Your task to perform on an android device: Go to battery settings Image 0: 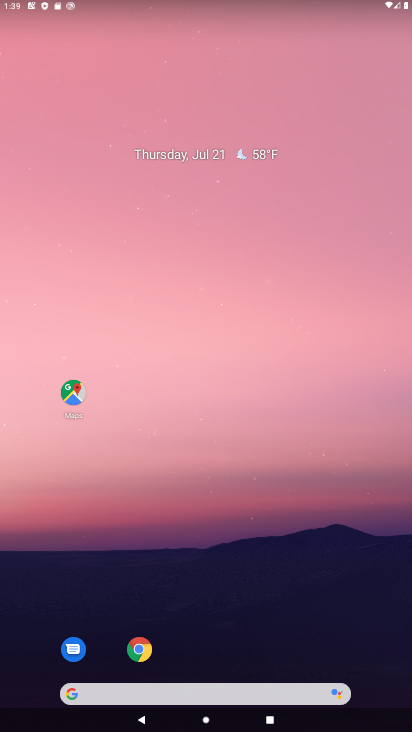
Step 0: drag from (257, 681) to (247, 146)
Your task to perform on an android device: Go to battery settings Image 1: 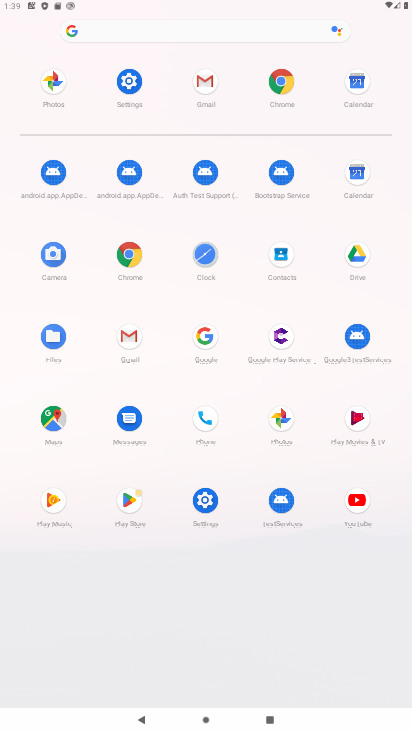
Step 1: click (149, 80)
Your task to perform on an android device: Go to battery settings Image 2: 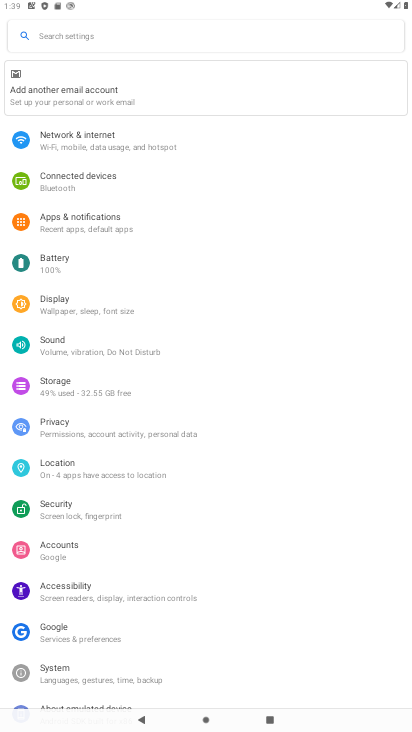
Step 2: click (117, 265)
Your task to perform on an android device: Go to battery settings Image 3: 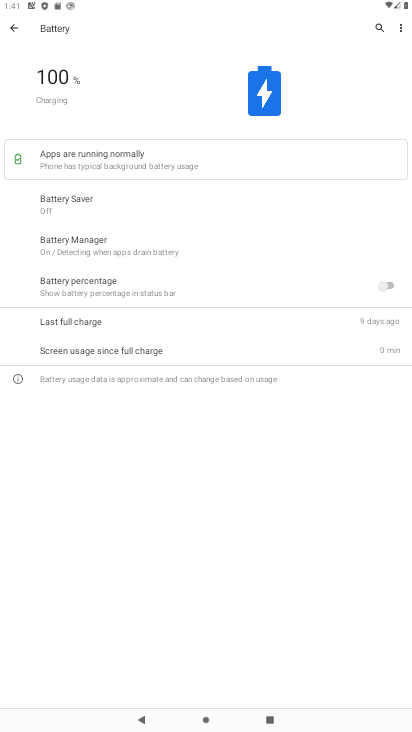
Step 3: task complete